Your task to perform on an android device: Show me recent news Image 0: 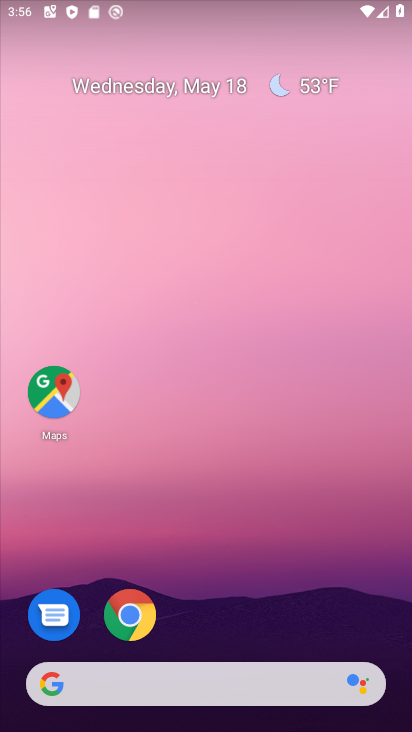
Step 0: drag from (281, 574) to (313, 56)
Your task to perform on an android device: Show me recent news Image 1: 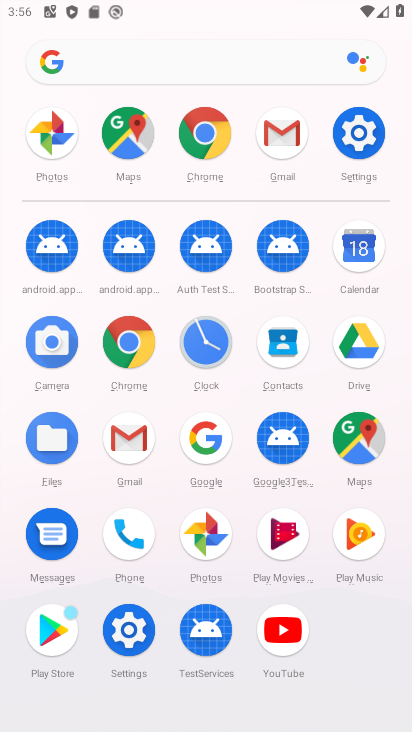
Step 1: click (218, 145)
Your task to perform on an android device: Show me recent news Image 2: 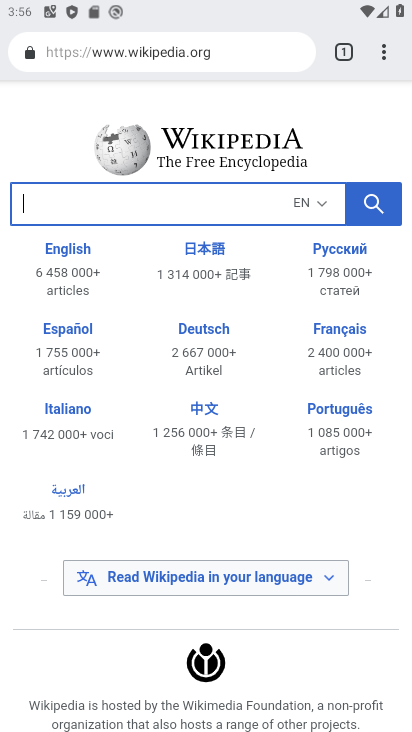
Step 2: click (226, 45)
Your task to perform on an android device: Show me recent news Image 3: 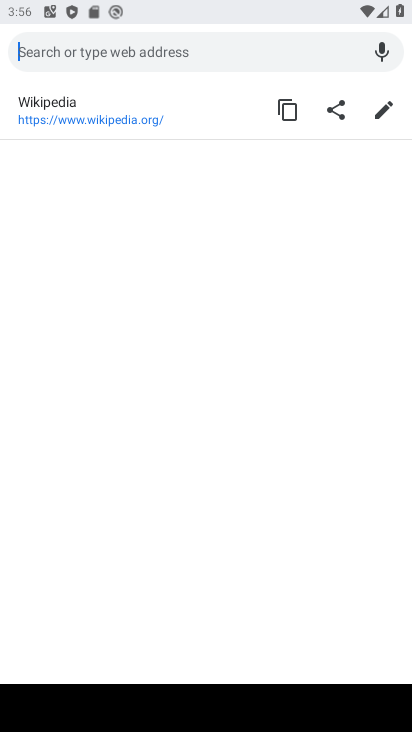
Step 3: type "news"
Your task to perform on an android device: Show me recent news Image 4: 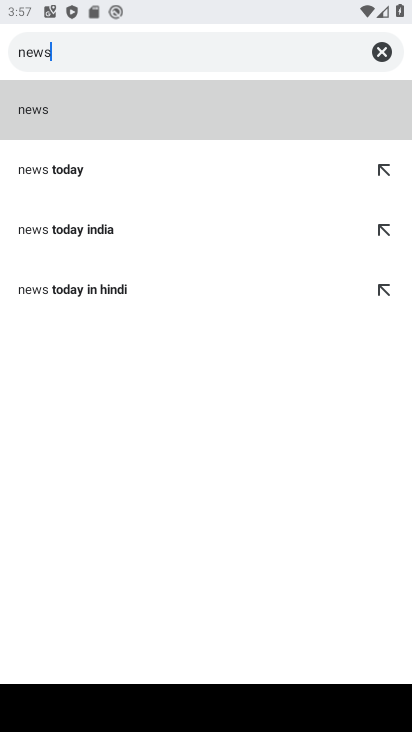
Step 4: click (45, 108)
Your task to perform on an android device: Show me recent news Image 5: 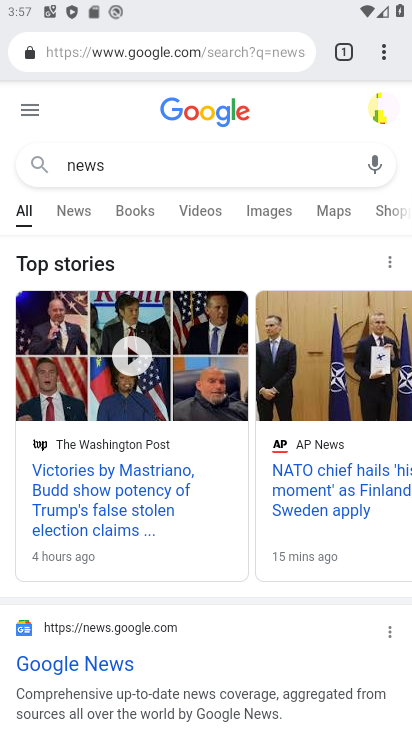
Step 5: click (75, 206)
Your task to perform on an android device: Show me recent news Image 6: 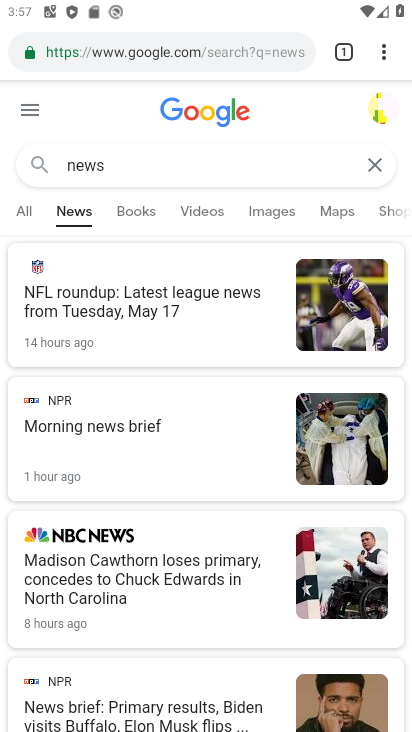
Step 6: task complete